Your task to perform on an android device: change the clock display to analog Image 0: 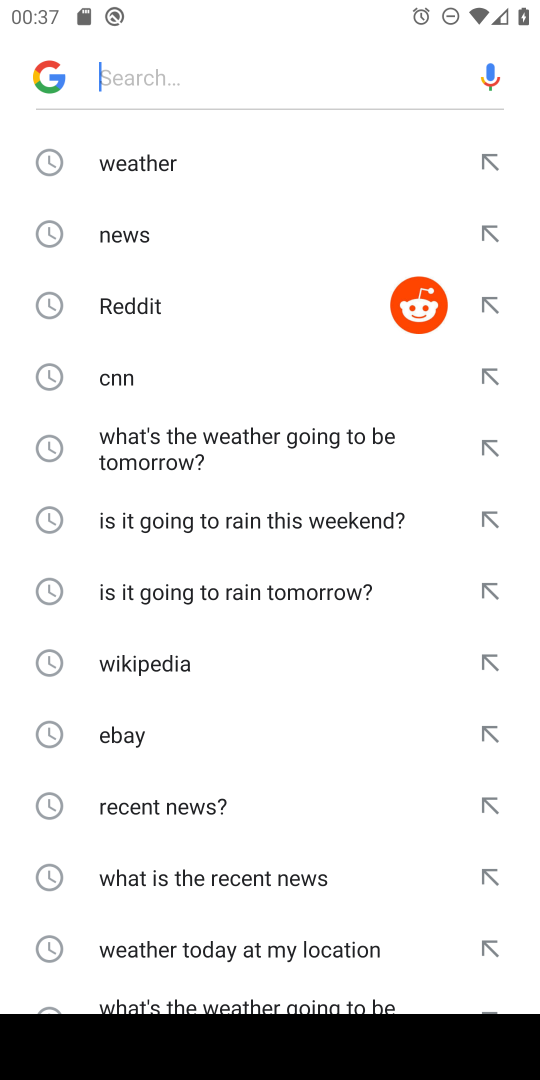
Step 0: press home button
Your task to perform on an android device: change the clock display to analog Image 1: 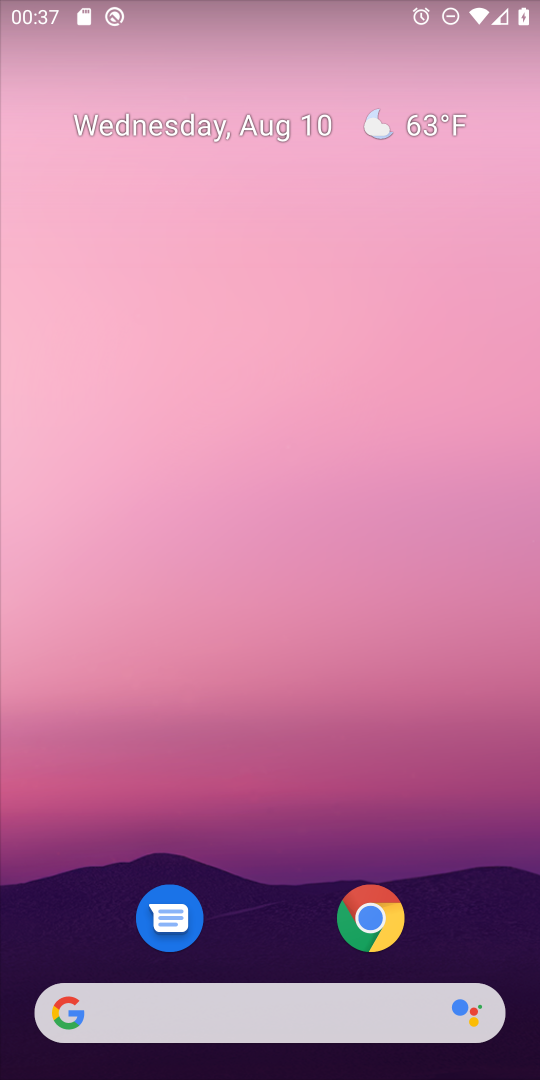
Step 1: drag from (252, 853) to (239, 264)
Your task to perform on an android device: change the clock display to analog Image 2: 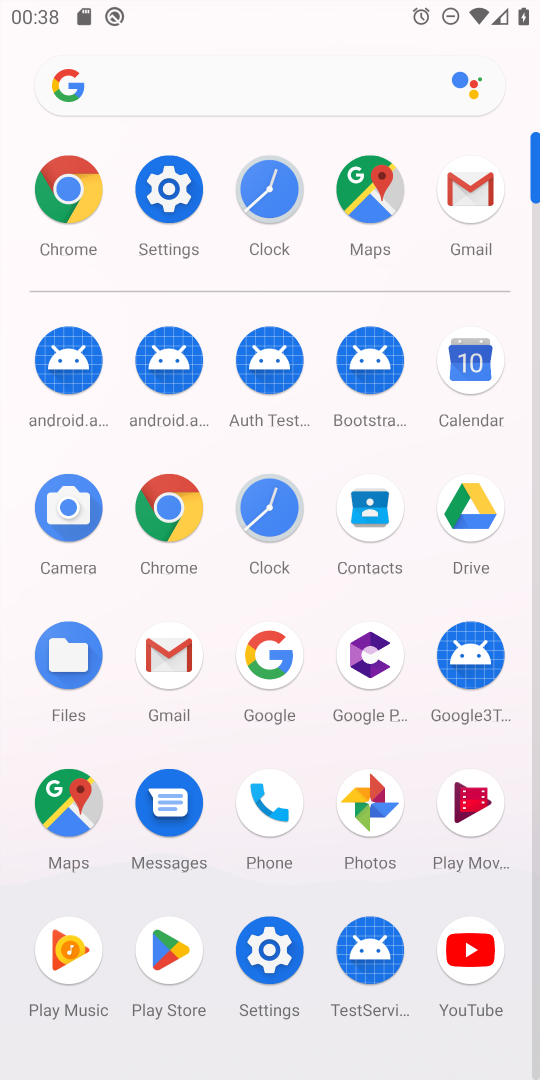
Step 2: click (273, 503)
Your task to perform on an android device: change the clock display to analog Image 3: 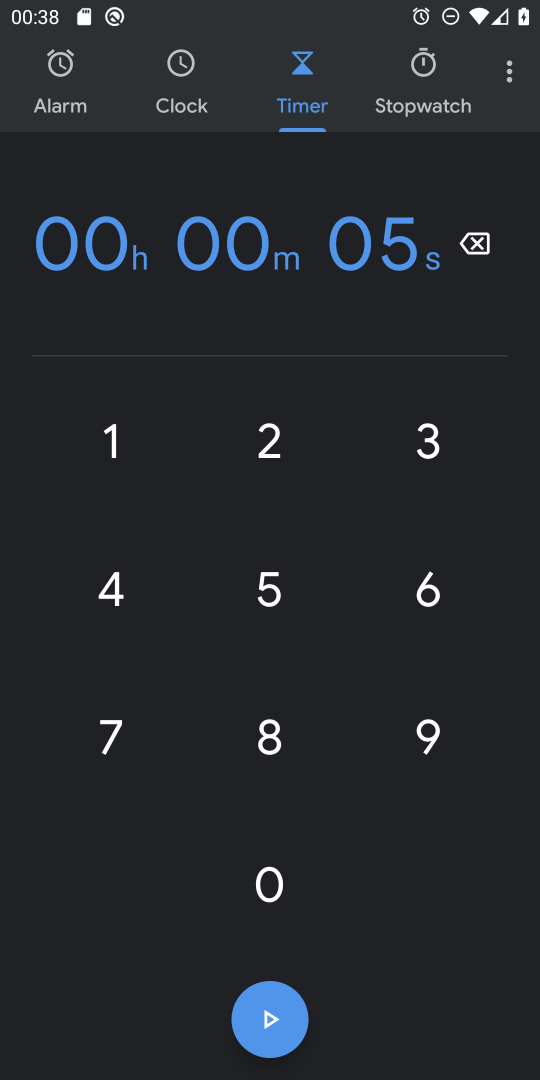
Step 3: click (526, 51)
Your task to perform on an android device: change the clock display to analog Image 4: 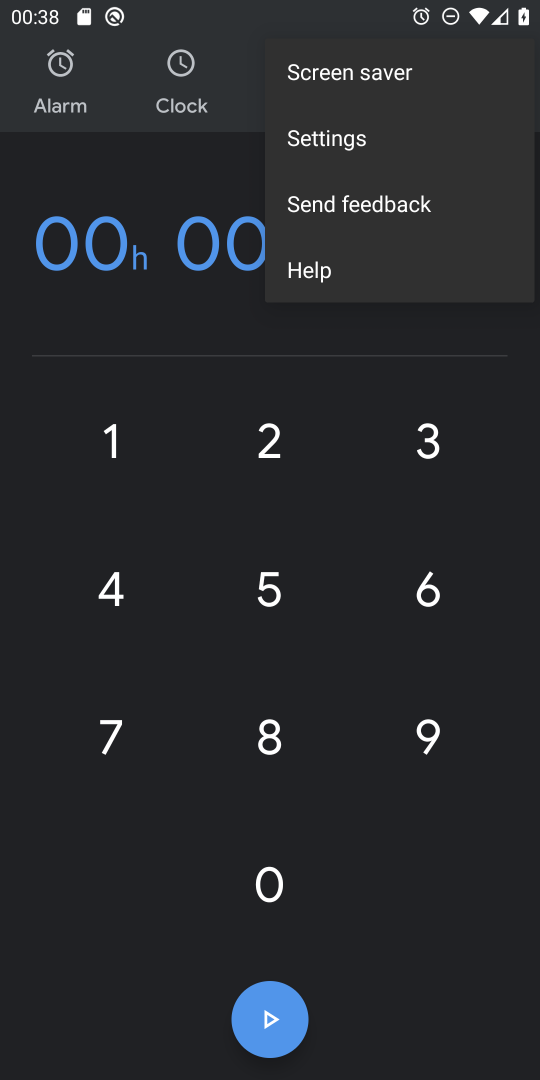
Step 4: click (314, 143)
Your task to perform on an android device: change the clock display to analog Image 5: 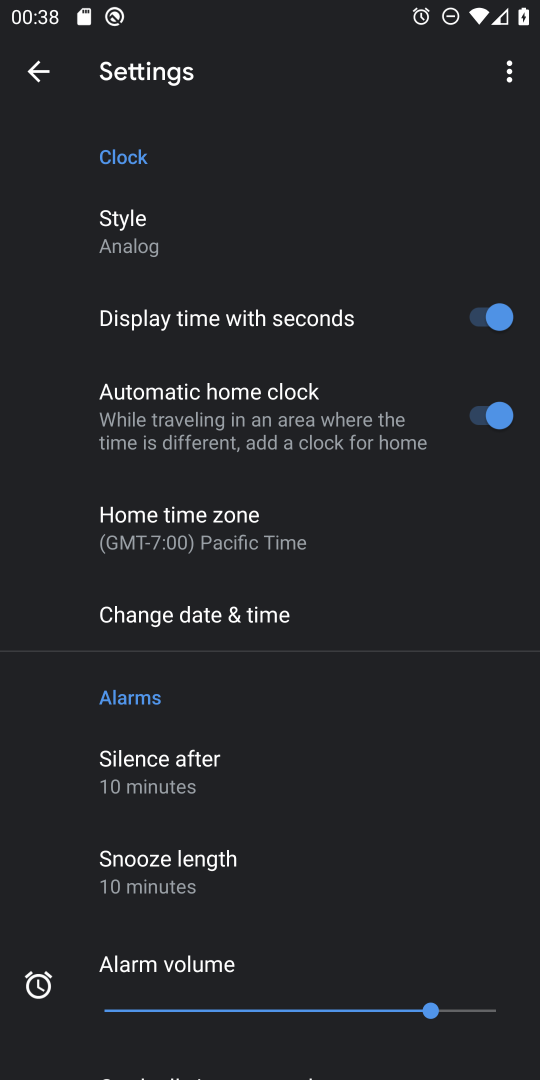
Step 5: click (151, 221)
Your task to perform on an android device: change the clock display to analog Image 6: 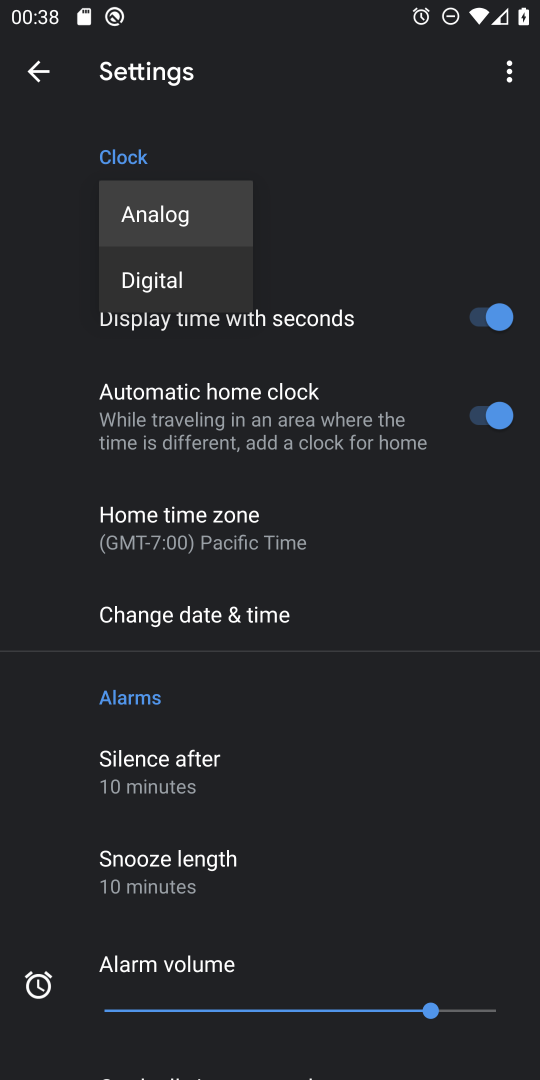
Step 6: click (166, 223)
Your task to perform on an android device: change the clock display to analog Image 7: 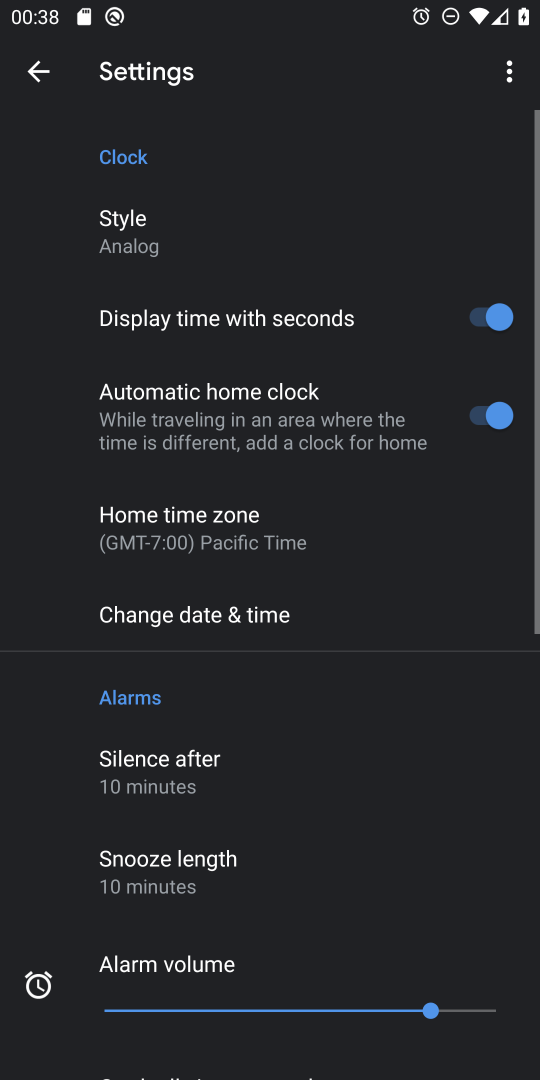
Step 7: task complete